Your task to perform on an android device: turn off airplane mode Image 0: 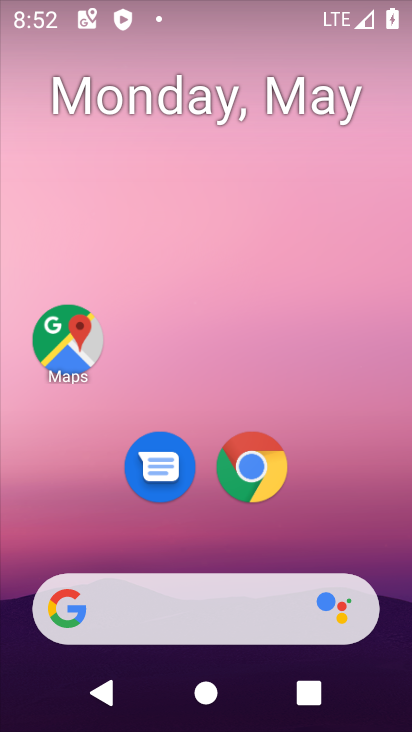
Step 0: drag from (282, 114) to (262, 42)
Your task to perform on an android device: turn off airplane mode Image 1: 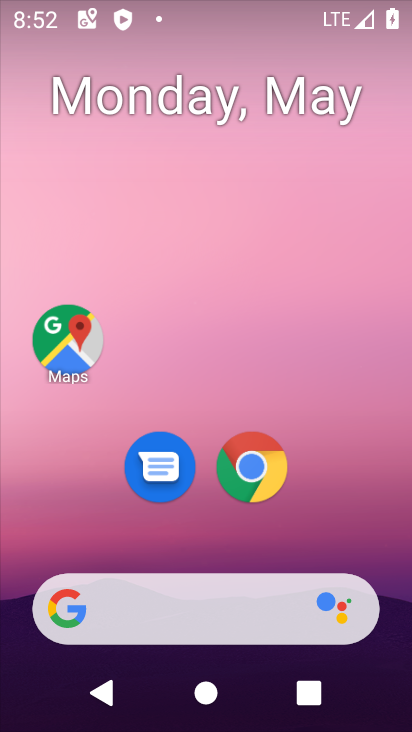
Step 1: drag from (330, 520) to (209, 72)
Your task to perform on an android device: turn off airplane mode Image 2: 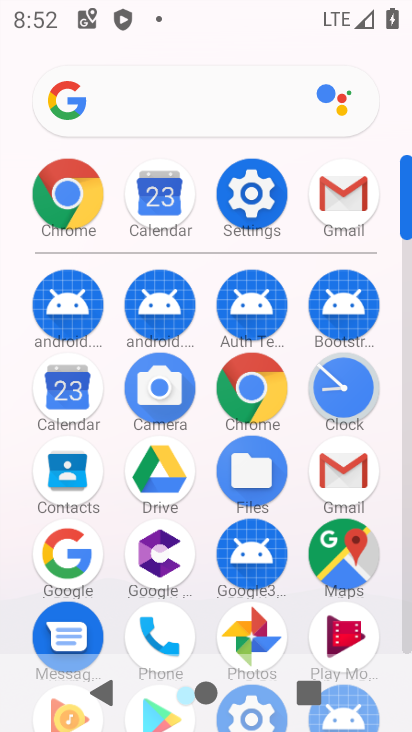
Step 2: click (250, 192)
Your task to perform on an android device: turn off airplane mode Image 3: 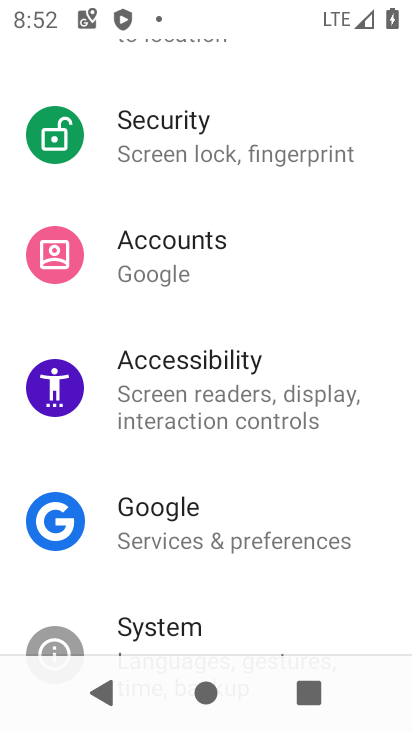
Step 3: drag from (280, 210) to (292, 668)
Your task to perform on an android device: turn off airplane mode Image 4: 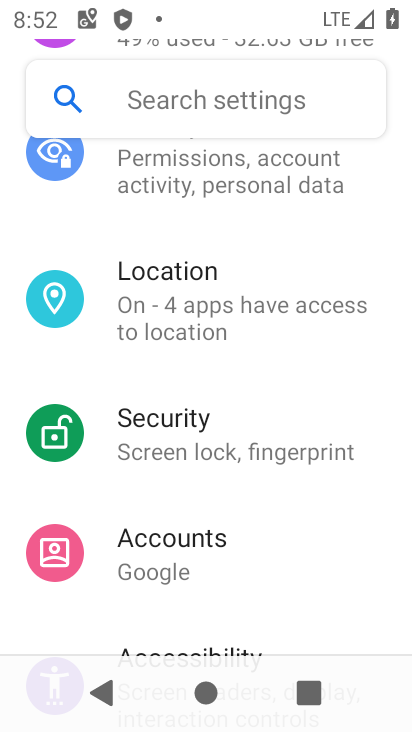
Step 4: drag from (260, 207) to (229, 618)
Your task to perform on an android device: turn off airplane mode Image 5: 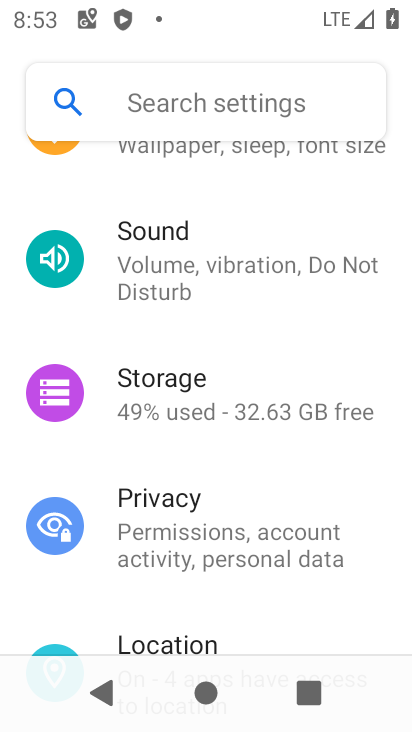
Step 5: drag from (225, 213) to (239, 716)
Your task to perform on an android device: turn off airplane mode Image 6: 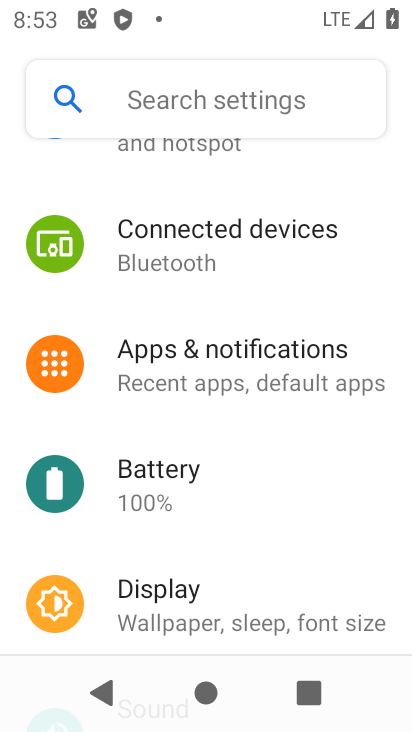
Step 6: drag from (240, 236) to (206, 710)
Your task to perform on an android device: turn off airplane mode Image 7: 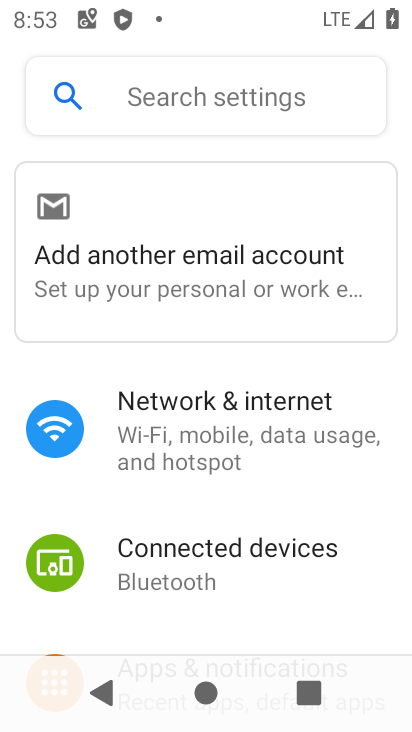
Step 7: click (211, 414)
Your task to perform on an android device: turn off airplane mode Image 8: 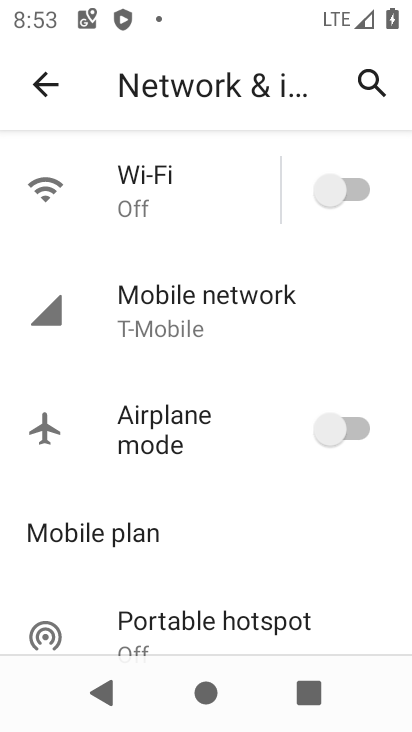
Step 8: task complete